Your task to perform on an android device: Search for Italian restaurants on Maps Image 0: 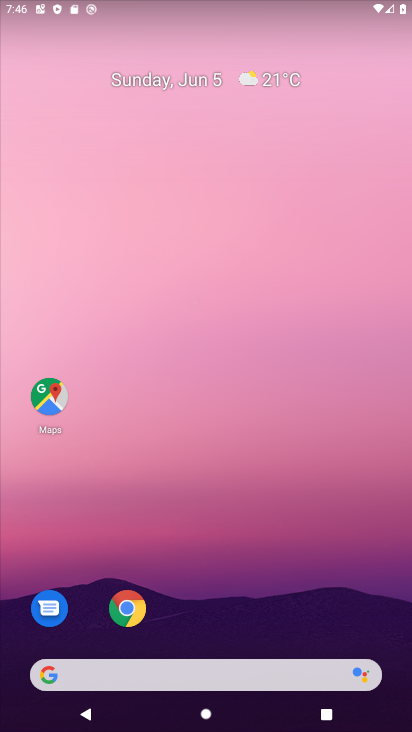
Step 0: drag from (295, 574) to (283, 142)
Your task to perform on an android device: Search for Italian restaurants on Maps Image 1: 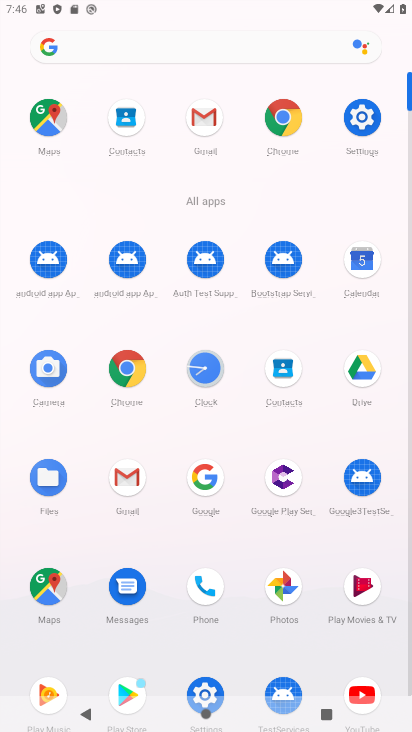
Step 1: click (38, 601)
Your task to perform on an android device: Search for Italian restaurants on Maps Image 2: 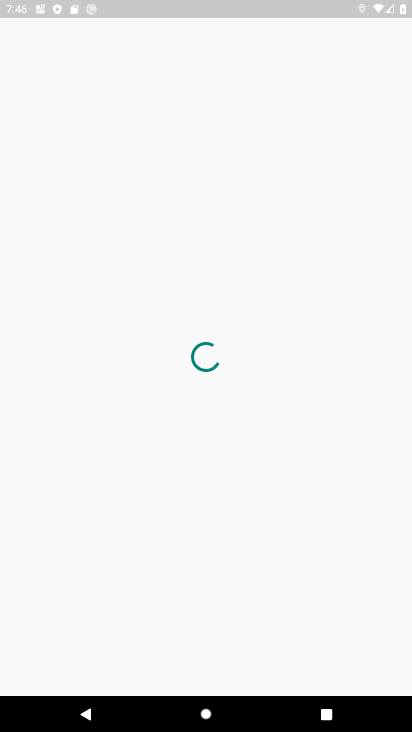
Step 2: click (351, 38)
Your task to perform on an android device: Search for Italian restaurants on Maps Image 3: 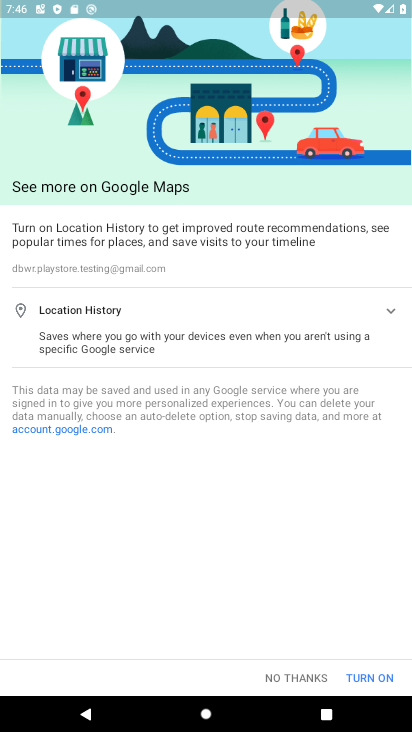
Step 3: click (277, 668)
Your task to perform on an android device: Search for Italian restaurants on Maps Image 4: 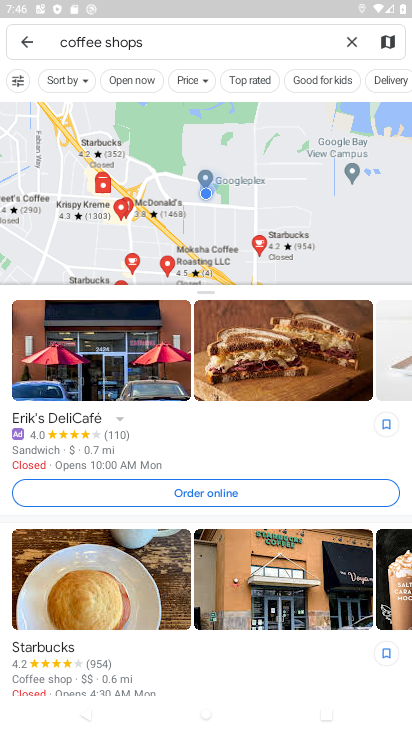
Step 4: click (354, 46)
Your task to perform on an android device: Search for Italian restaurants on Maps Image 5: 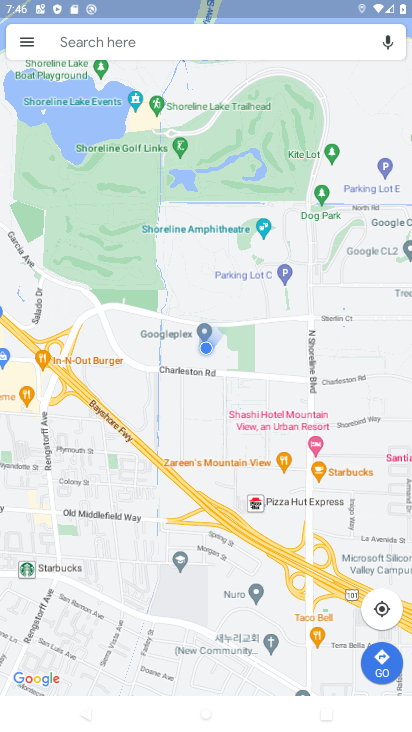
Step 5: click (173, 32)
Your task to perform on an android device: Search for Italian restaurants on Maps Image 6: 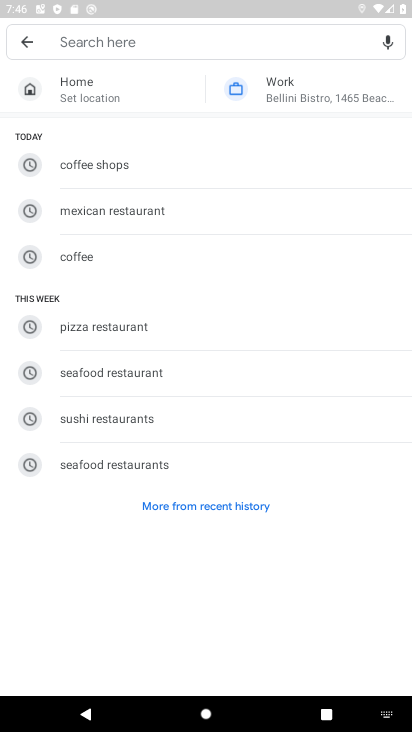
Step 6: type "italian restaurants "
Your task to perform on an android device: Search for Italian restaurants on Maps Image 7: 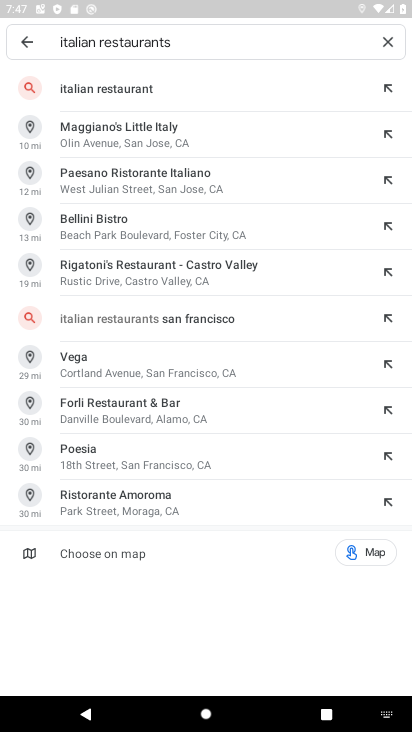
Step 7: click (205, 86)
Your task to perform on an android device: Search for Italian restaurants on Maps Image 8: 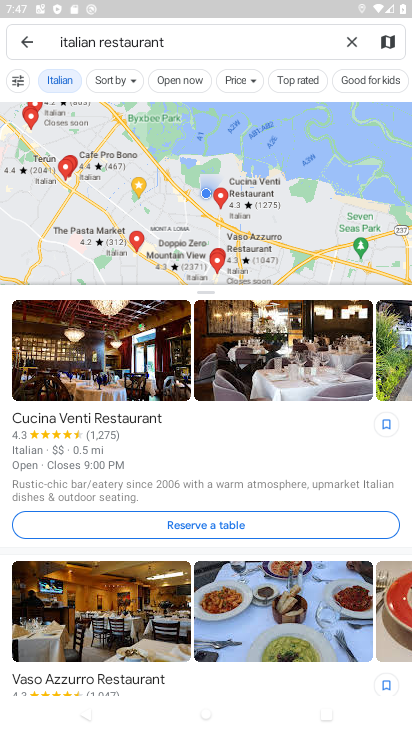
Step 8: task complete